Your task to perform on an android device: turn off improve location accuracy Image 0: 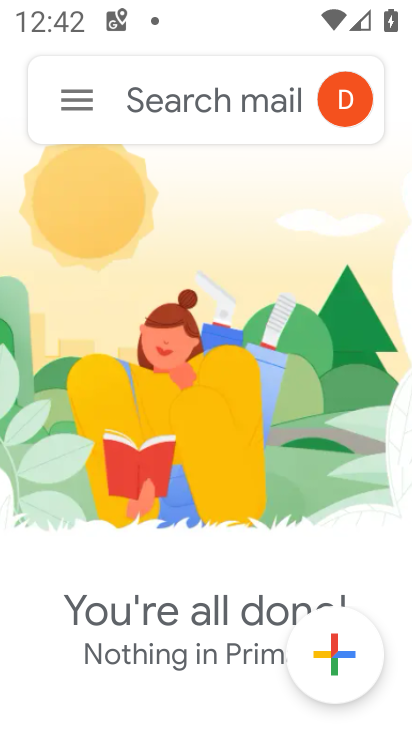
Step 0: press back button
Your task to perform on an android device: turn off improve location accuracy Image 1: 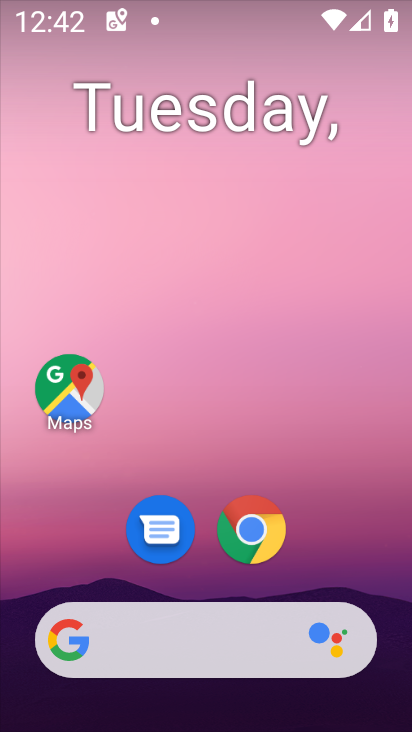
Step 1: drag from (215, 559) to (227, 49)
Your task to perform on an android device: turn off improve location accuracy Image 2: 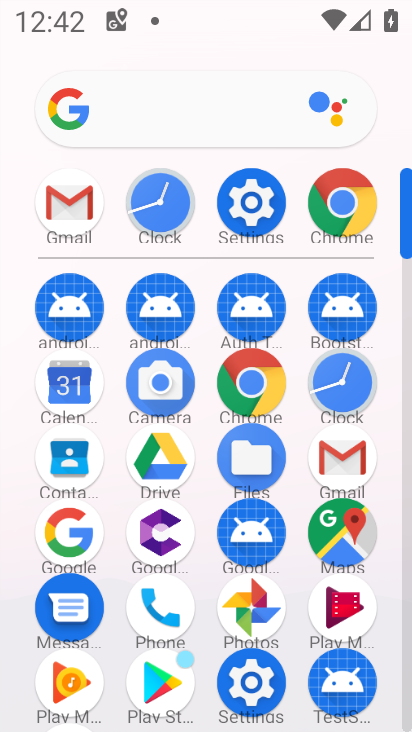
Step 2: click (250, 198)
Your task to perform on an android device: turn off improve location accuracy Image 3: 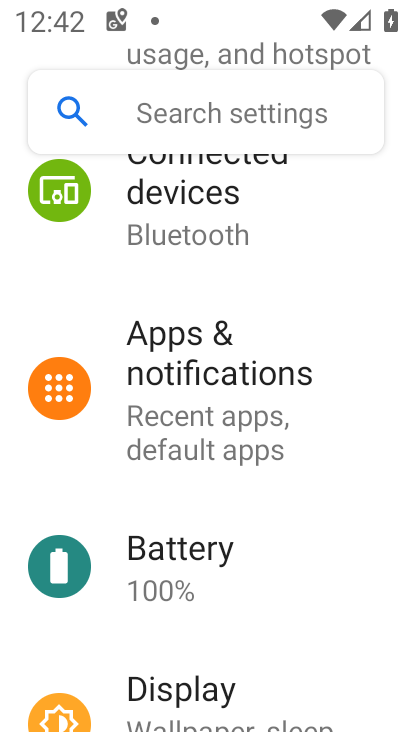
Step 3: drag from (232, 640) to (302, 31)
Your task to perform on an android device: turn off improve location accuracy Image 4: 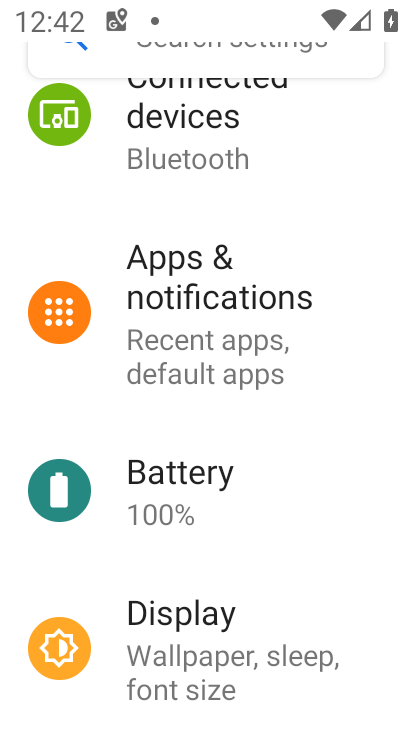
Step 4: drag from (193, 533) to (230, 109)
Your task to perform on an android device: turn off improve location accuracy Image 5: 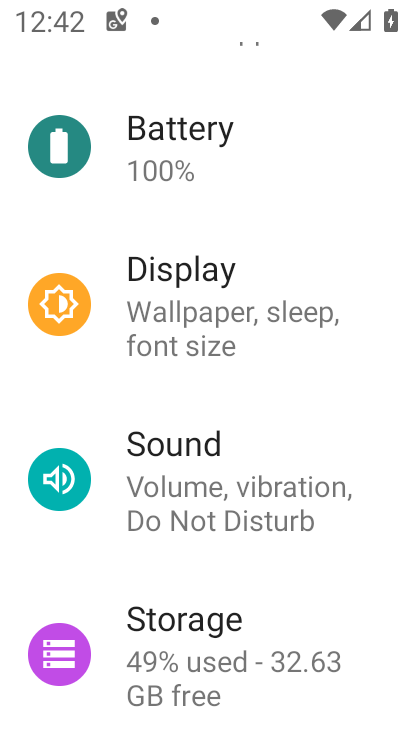
Step 5: drag from (156, 642) to (254, 35)
Your task to perform on an android device: turn off improve location accuracy Image 6: 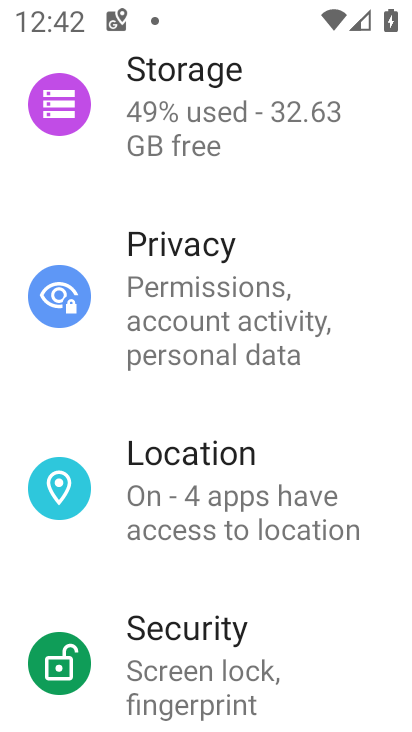
Step 6: click (220, 477)
Your task to perform on an android device: turn off improve location accuracy Image 7: 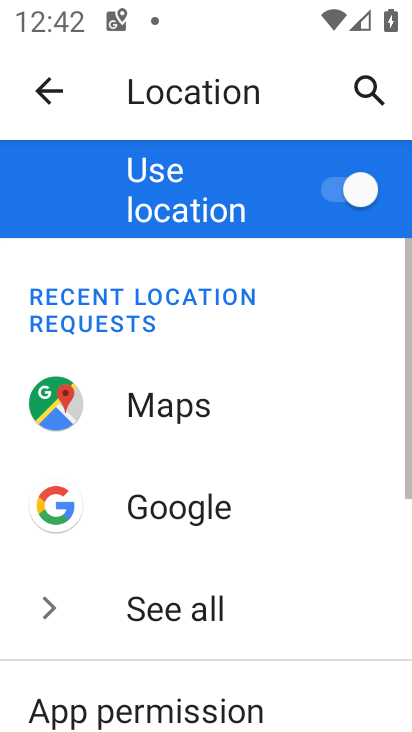
Step 7: drag from (180, 679) to (256, 101)
Your task to perform on an android device: turn off improve location accuracy Image 8: 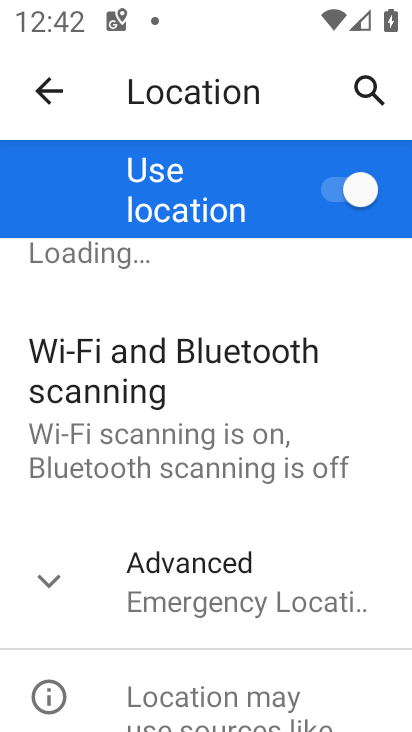
Step 8: click (183, 584)
Your task to perform on an android device: turn off improve location accuracy Image 9: 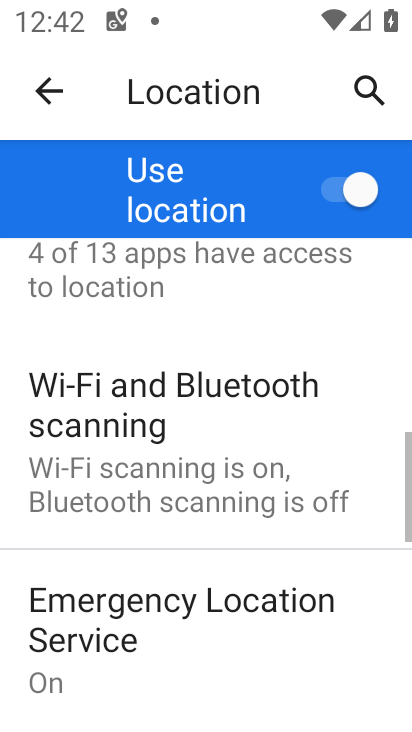
Step 9: drag from (141, 631) to (207, 92)
Your task to perform on an android device: turn off improve location accuracy Image 10: 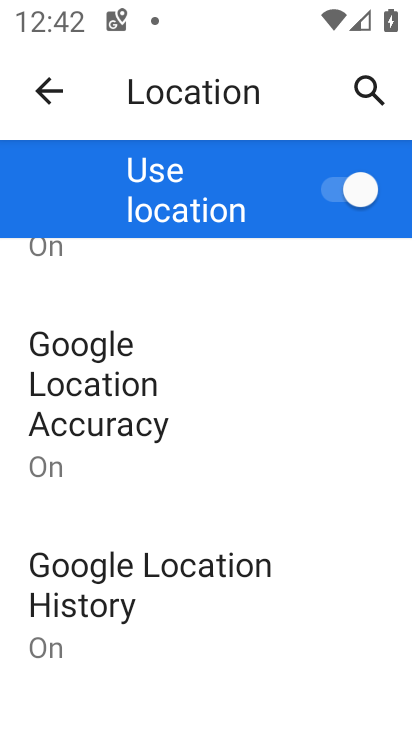
Step 10: click (83, 413)
Your task to perform on an android device: turn off improve location accuracy Image 11: 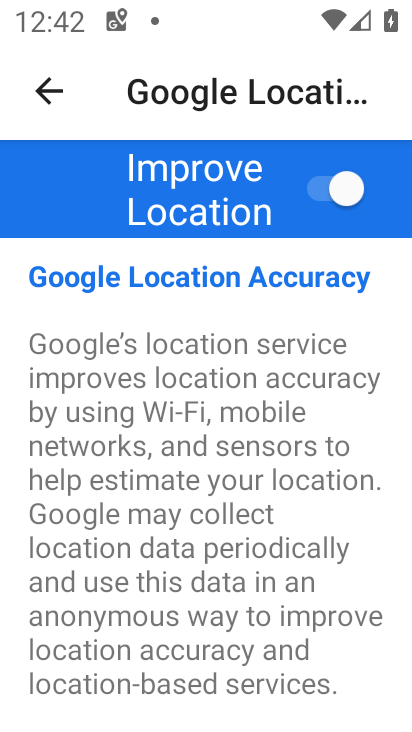
Step 11: click (332, 190)
Your task to perform on an android device: turn off improve location accuracy Image 12: 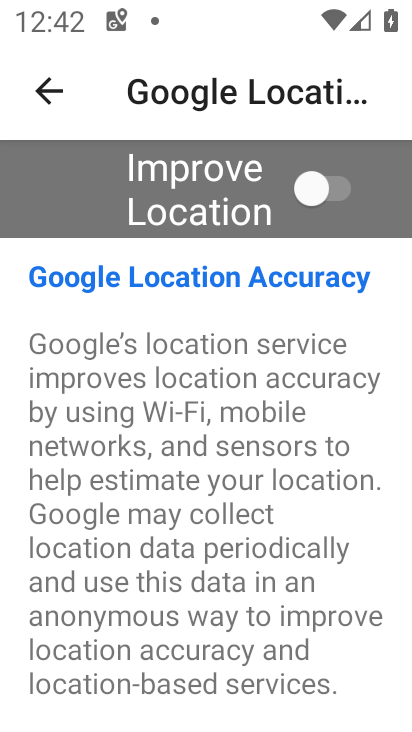
Step 12: task complete